Your task to perform on an android device: change the upload size in google photos Image 0: 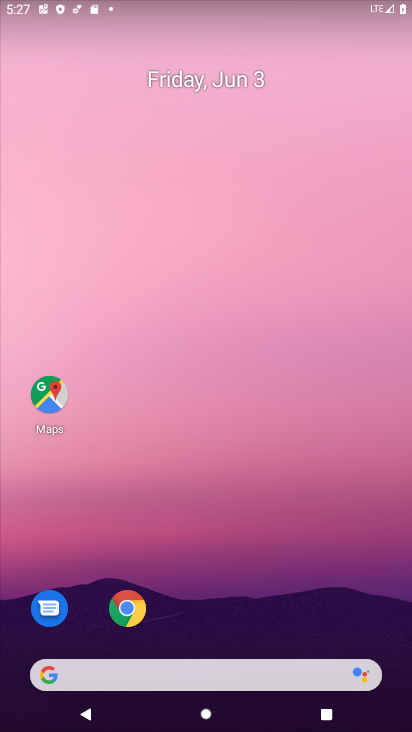
Step 0: drag from (310, 629) to (348, 123)
Your task to perform on an android device: change the upload size in google photos Image 1: 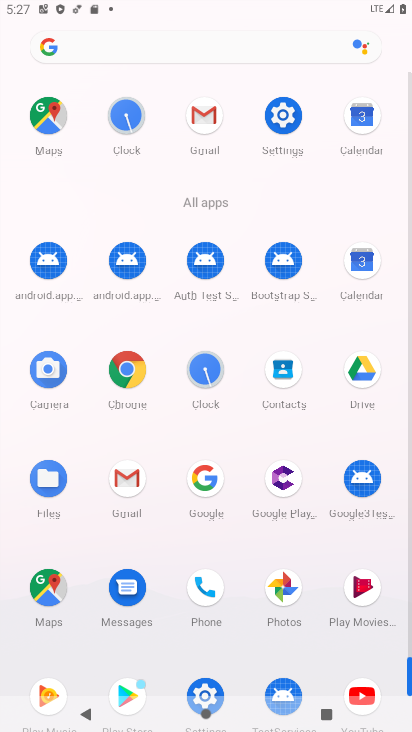
Step 1: click (284, 589)
Your task to perform on an android device: change the upload size in google photos Image 2: 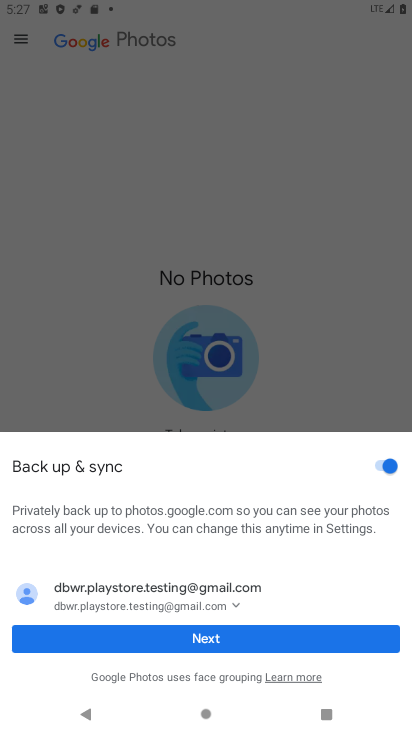
Step 2: click (171, 630)
Your task to perform on an android device: change the upload size in google photos Image 3: 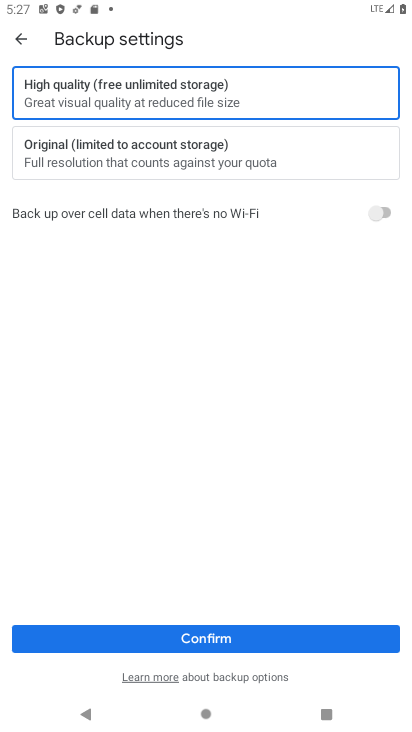
Step 3: click (161, 635)
Your task to perform on an android device: change the upload size in google photos Image 4: 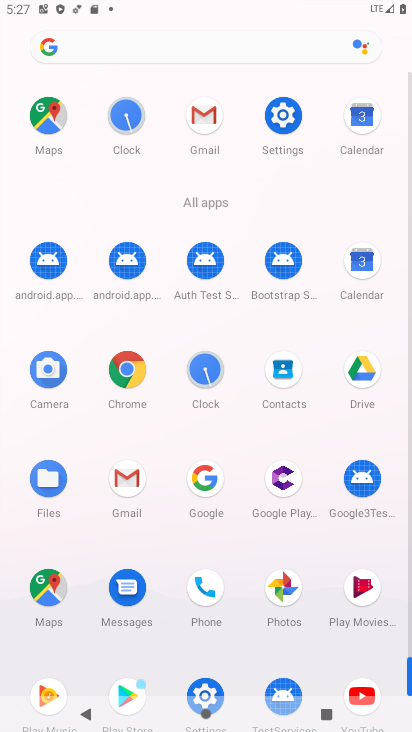
Step 4: click (282, 570)
Your task to perform on an android device: change the upload size in google photos Image 5: 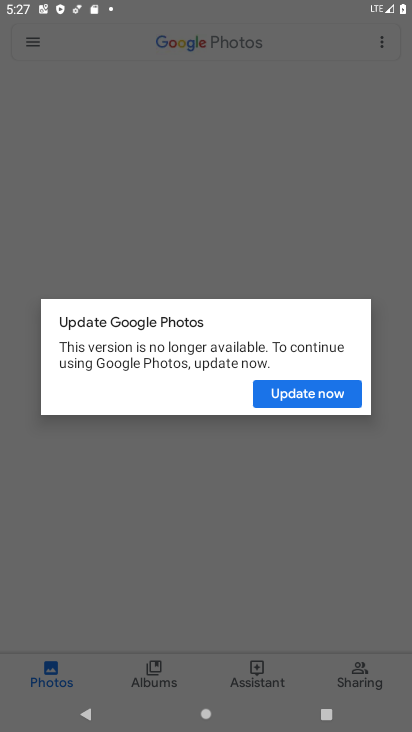
Step 5: click (304, 399)
Your task to perform on an android device: change the upload size in google photos Image 6: 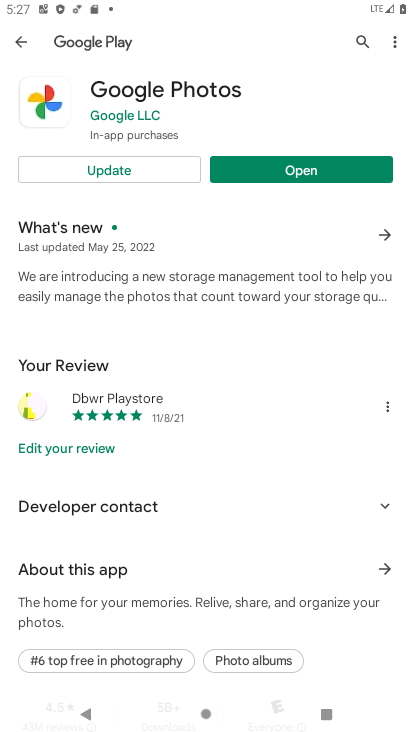
Step 6: click (150, 157)
Your task to perform on an android device: change the upload size in google photos Image 7: 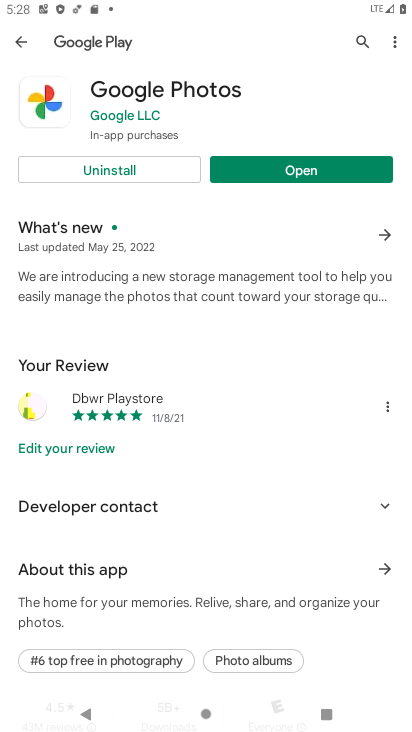
Step 7: click (357, 175)
Your task to perform on an android device: change the upload size in google photos Image 8: 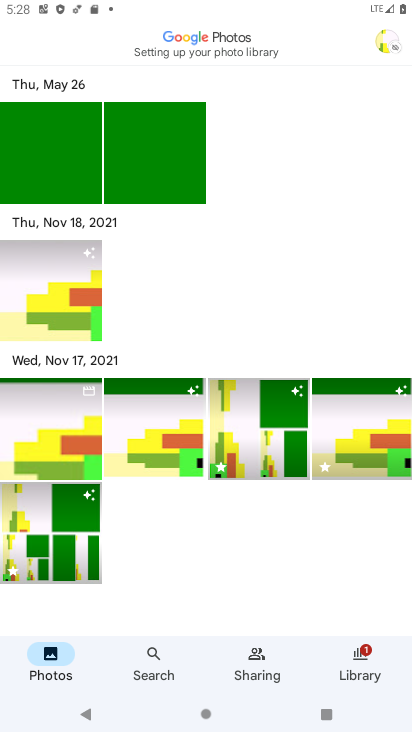
Step 8: click (58, 297)
Your task to perform on an android device: change the upload size in google photos Image 9: 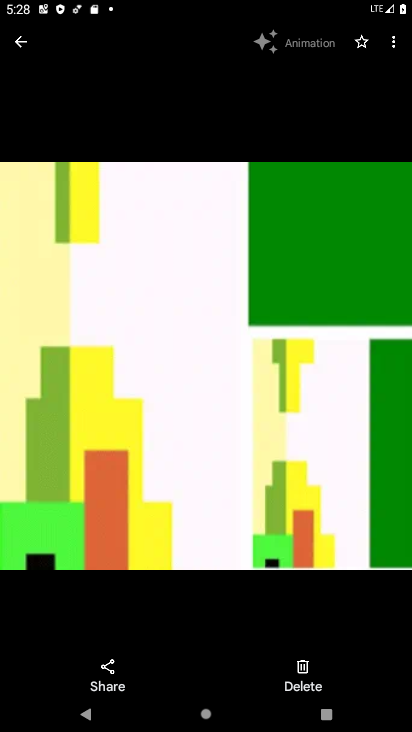
Step 9: click (34, 37)
Your task to perform on an android device: change the upload size in google photos Image 10: 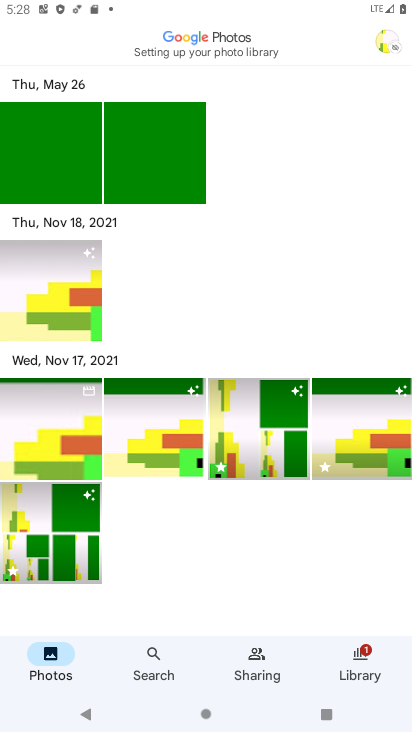
Step 10: click (256, 440)
Your task to perform on an android device: change the upload size in google photos Image 11: 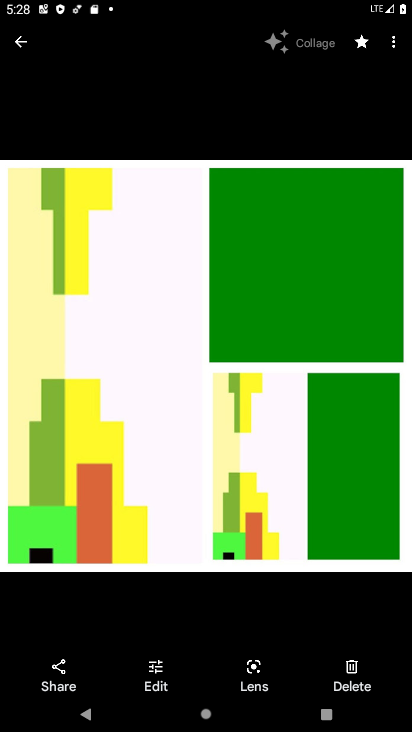
Step 11: click (398, 54)
Your task to perform on an android device: change the upload size in google photos Image 12: 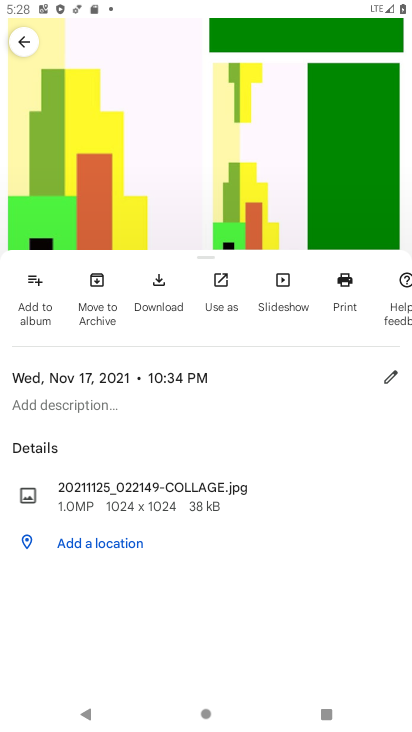
Step 12: drag from (347, 280) to (56, 232)
Your task to perform on an android device: change the upload size in google photos Image 13: 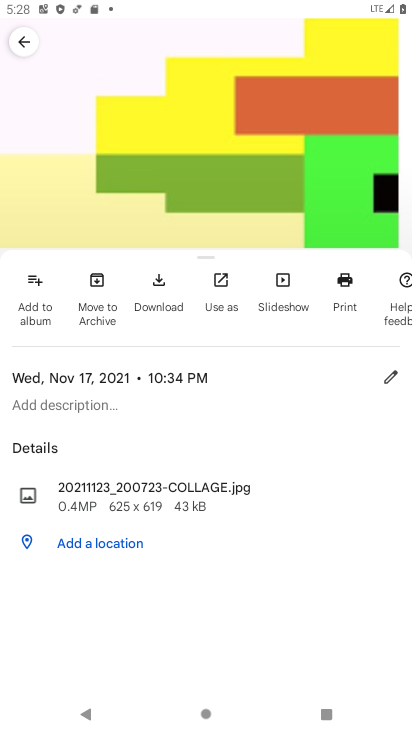
Step 13: drag from (56, 300) to (332, 288)
Your task to perform on an android device: change the upload size in google photos Image 14: 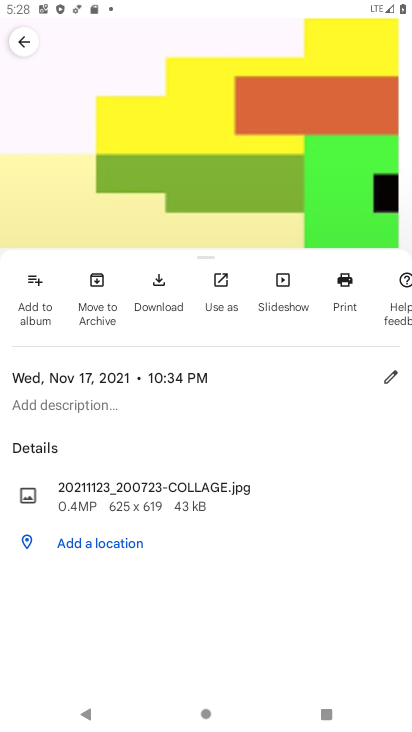
Step 14: drag from (359, 300) to (45, 321)
Your task to perform on an android device: change the upload size in google photos Image 15: 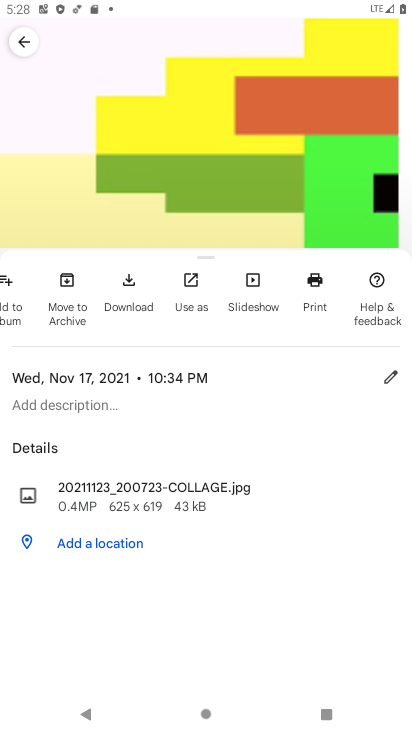
Step 15: click (13, 35)
Your task to perform on an android device: change the upload size in google photos Image 16: 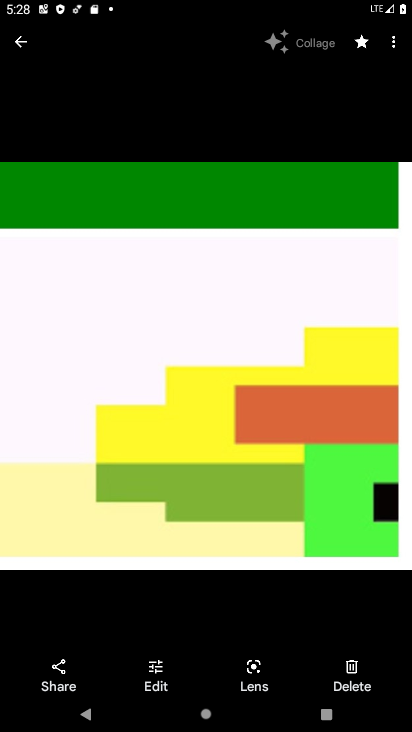
Step 16: click (24, 44)
Your task to perform on an android device: change the upload size in google photos Image 17: 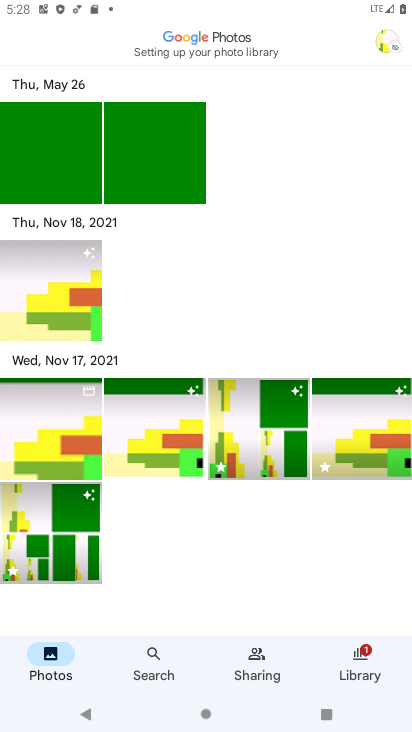
Step 17: click (391, 47)
Your task to perform on an android device: change the upload size in google photos Image 18: 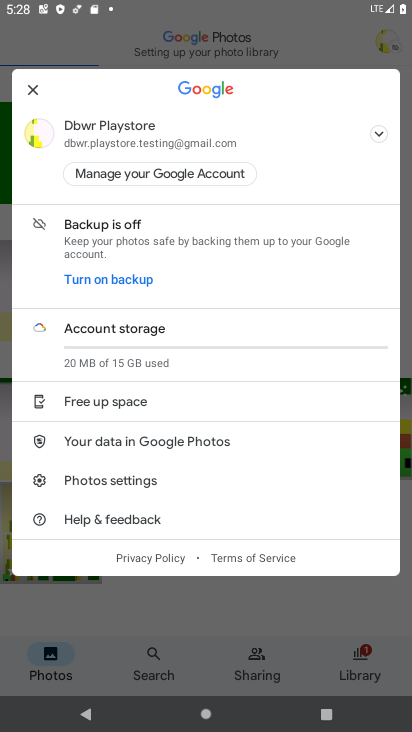
Step 18: click (86, 477)
Your task to perform on an android device: change the upload size in google photos Image 19: 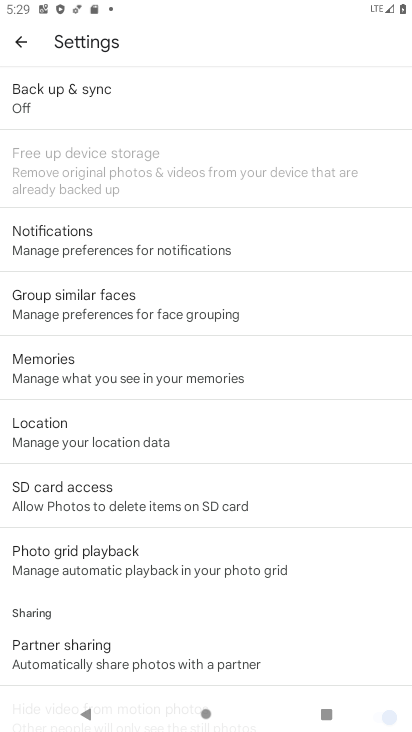
Step 19: drag from (119, 613) to (128, 285)
Your task to perform on an android device: change the upload size in google photos Image 20: 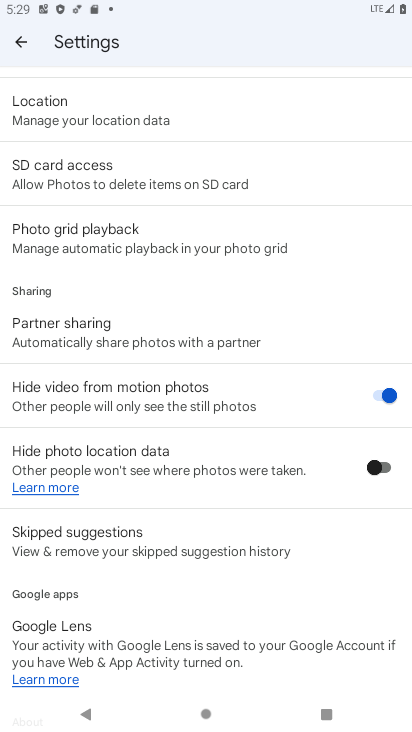
Step 20: drag from (126, 563) to (113, 85)
Your task to perform on an android device: change the upload size in google photos Image 21: 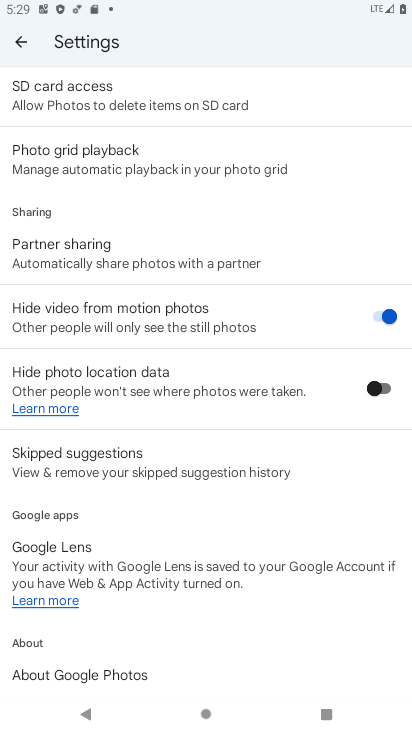
Step 21: drag from (103, 488) to (134, 195)
Your task to perform on an android device: change the upload size in google photos Image 22: 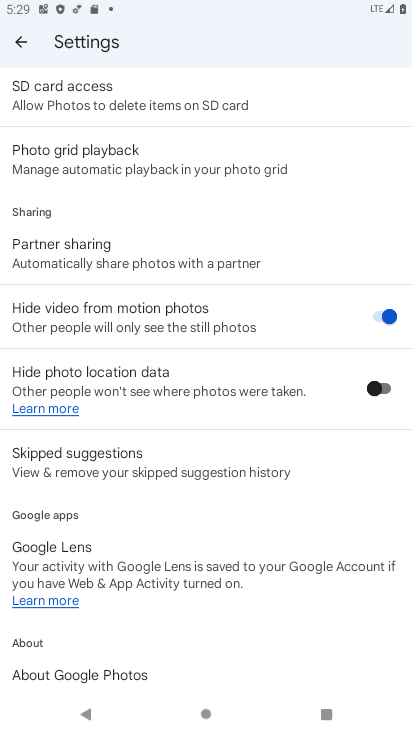
Step 22: click (149, 658)
Your task to perform on an android device: change the upload size in google photos Image 23: 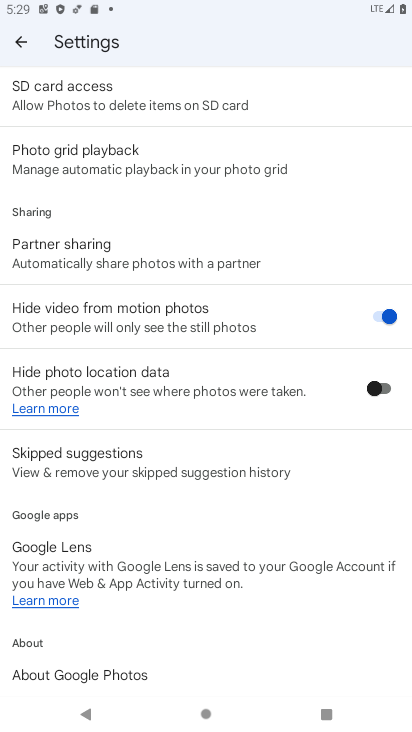
Step 23: drag from (136, 649) to (123, 608)
Your task to perform on an android device: change the upload size in google photos Image 24: 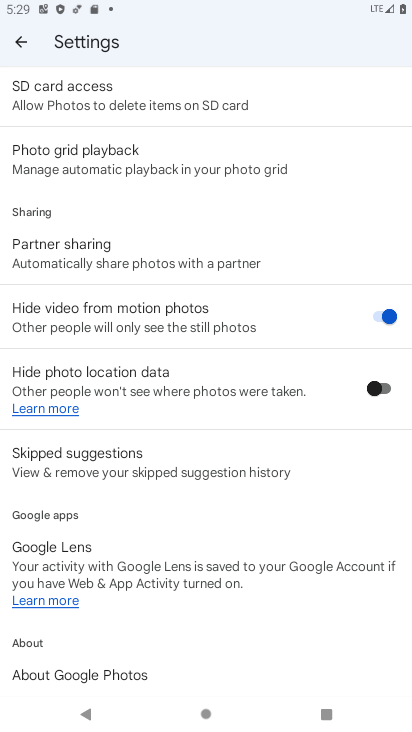
Step 24: click (129, 662)
Your task to perform on an android device: change the upload size in google photos Image 25: 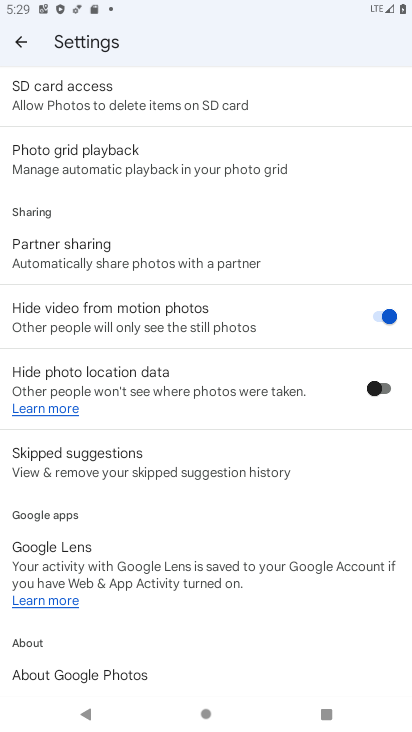
Step 25: click (123, 656)
Your task to perform on an android device: change the upload size in google photos Image 26: 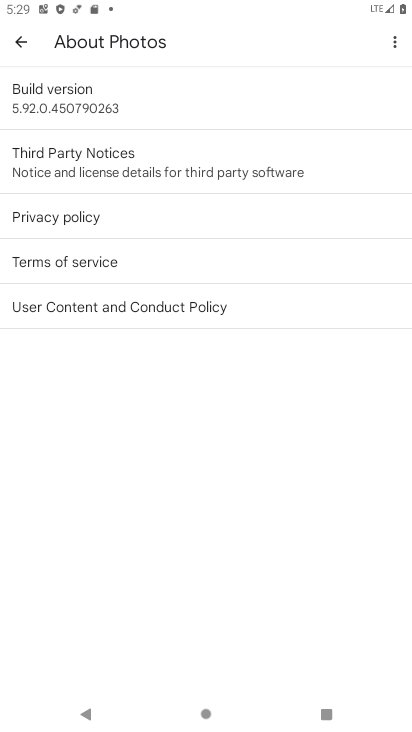
Step 26: task complete